Your task to perform on an android device: turn off smart reply in the gmail app Image 0: 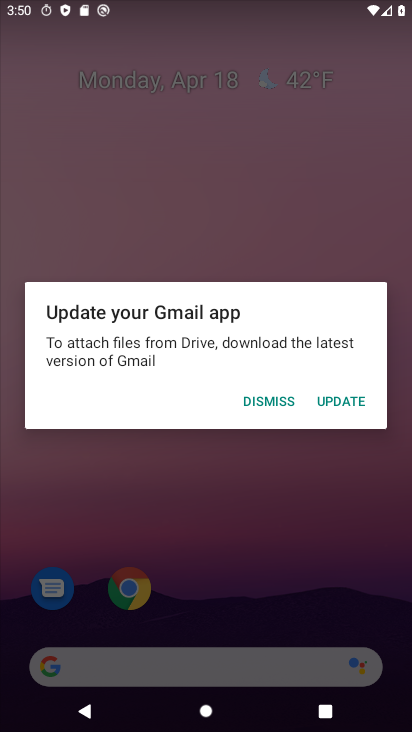
Step 0: press home button
Your task to perform on an android device: turn off smart reply in the gmail app Image 1: 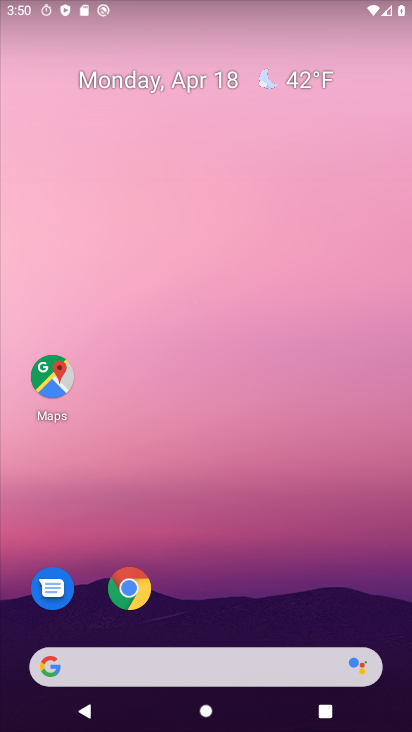
Step 1: drag from (207, 621) to (257, 47)
Your task to perform on an android device: turn off smart reply in the gmail app Image 2: 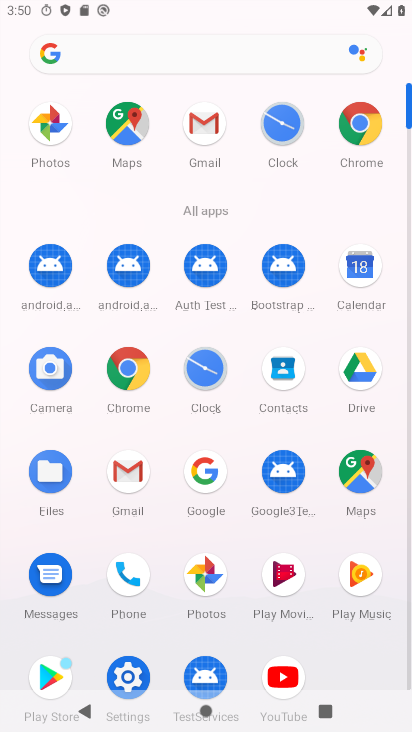
Step 2: click (204, 128)
Your task to perform on an android device: turn off smart reply in the gmail app Image 3: 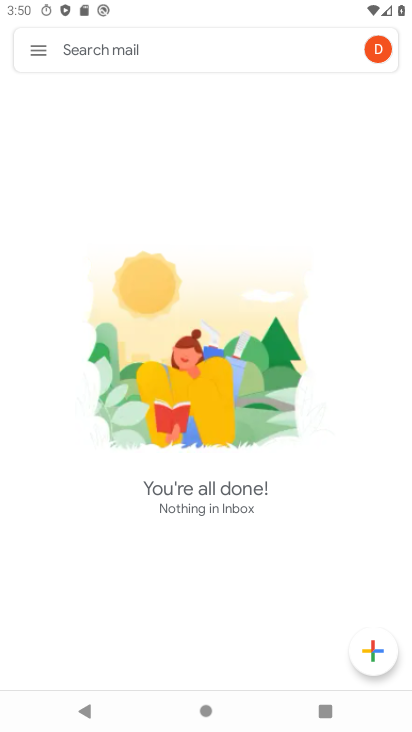
Step 3: click (43, 52)
Your task to perform on an android device: turn off smart reply in the gmail app Image 4: 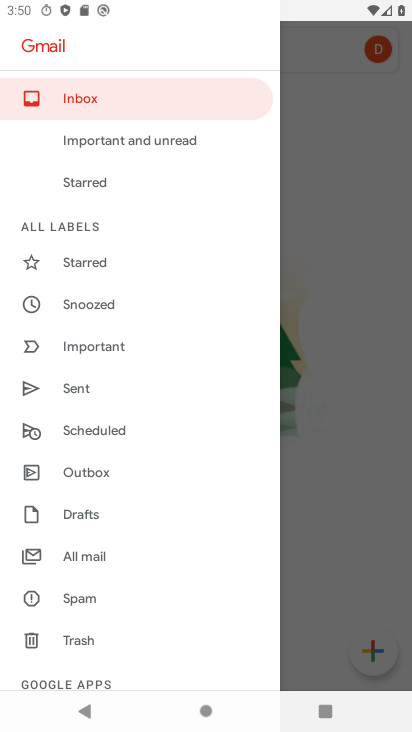
Step 4: drag from (80, 632) to (102, 61)
Your task to perform on an android device: turn off smart reply in the gmail app Image 5: 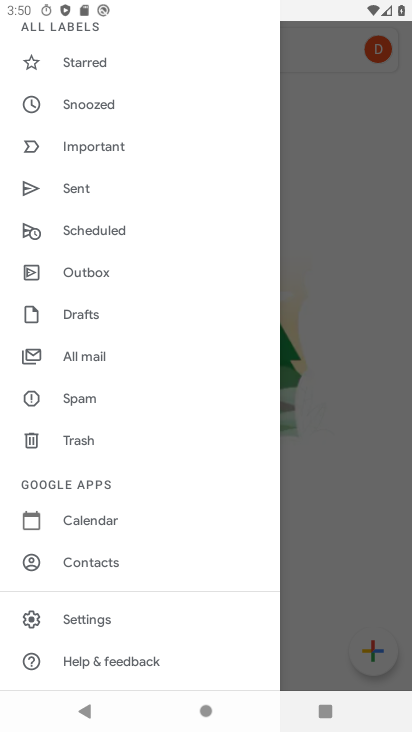
Step 5: click (90, 624)
Your task to perform on an android device: turn off smart reply in the gmail app Image 6: 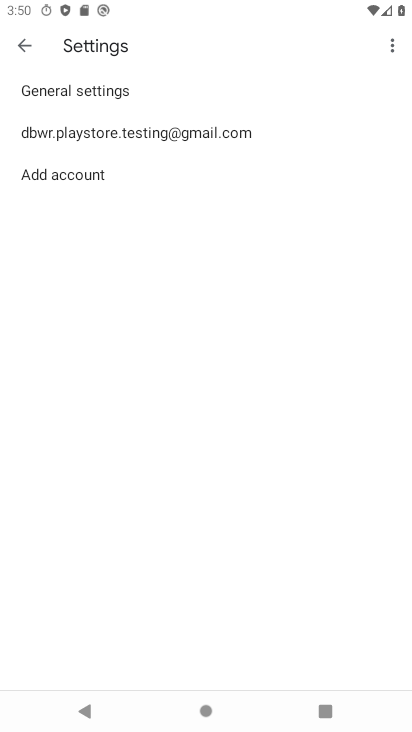
Step 6: click (178, 149)
Your task to perform on an android device: turn off smart reply in the gmail app Image 7: 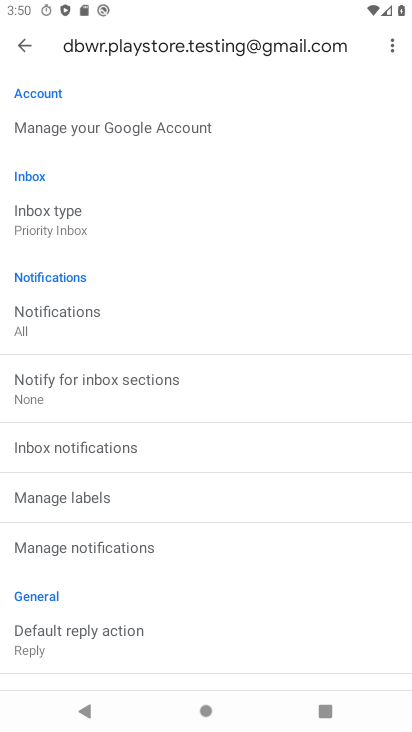
Step 7: drag from (94, 663) to (77, 125)
Your task to perform on an android device: turn off smart reply in the gmail app Image 8: 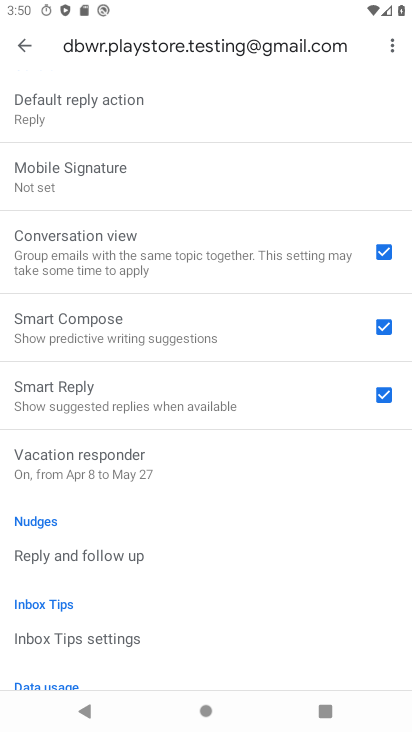
Step 8: click (382, 395)
Your task to perform on an android device: turn off smart reply in the gmail app Image 9: 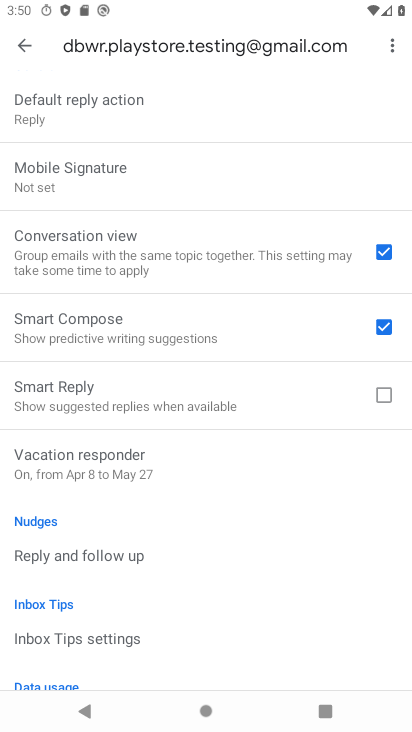
Step 9: task complete